Your task to perform on an android device: What's a good restaurant in San Jose? Image 0: 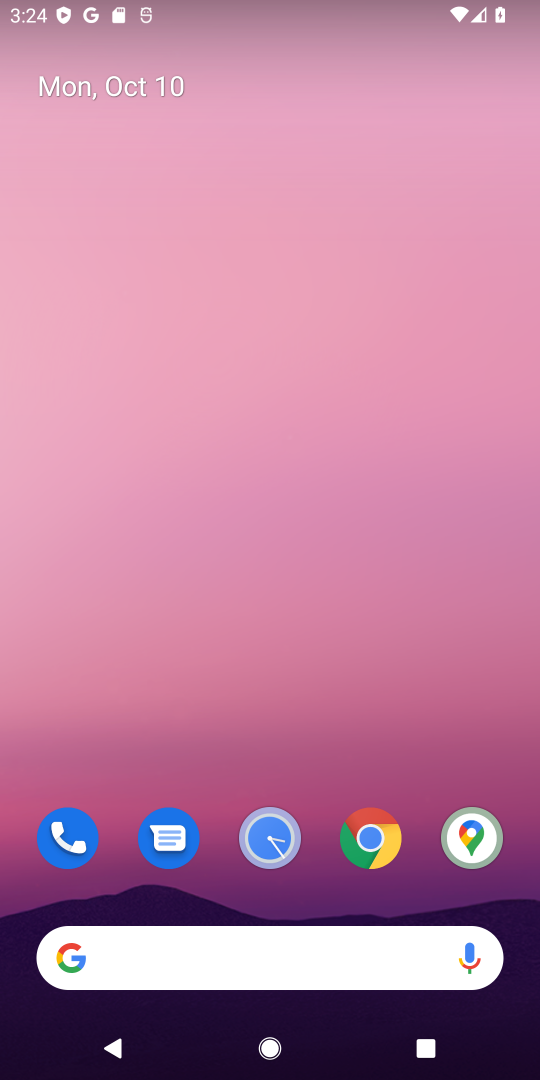
Step 0: click (254, 953)
Your task to perform on an android device: What's a good restaurant in San Jose? Image 1: 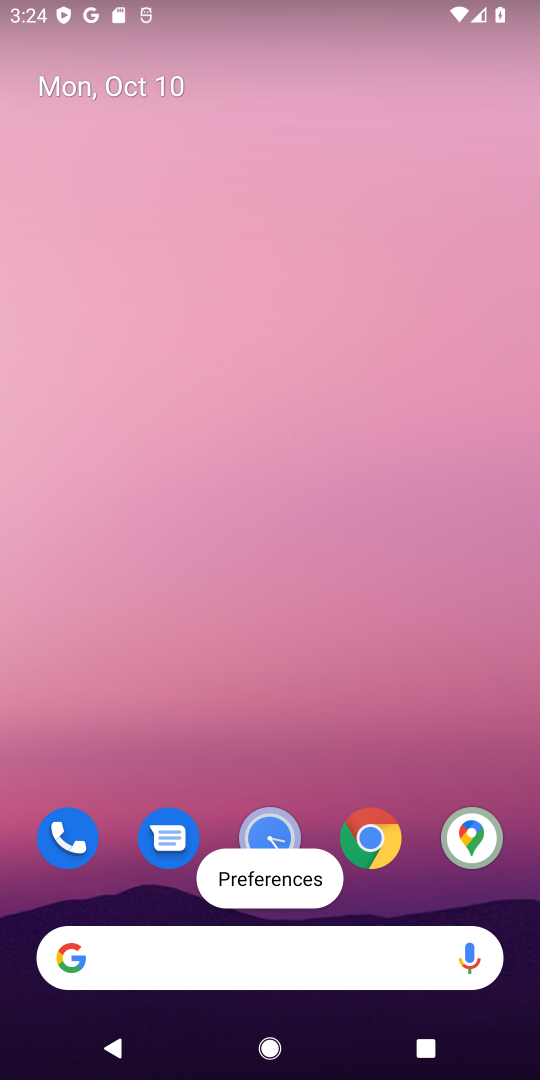
Step 1: click (254, 956)
Your task to perform on an android device: What's a good restaurant in San Jose? Image 2: 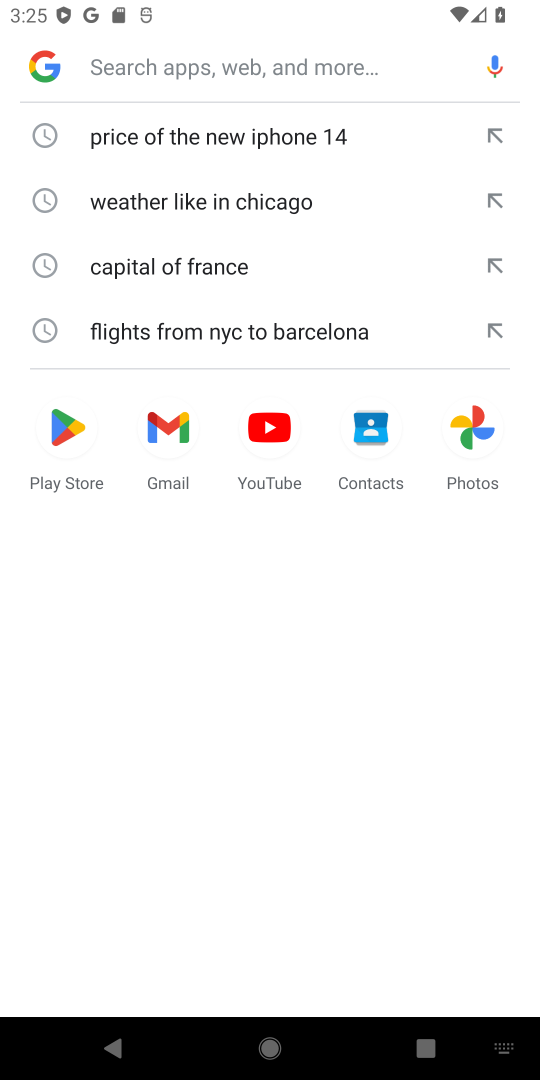
Step 2: type "good restaurant in San Jose"
Your task to perform on an android device: What's a good restaurant in San Jose? Image 3: 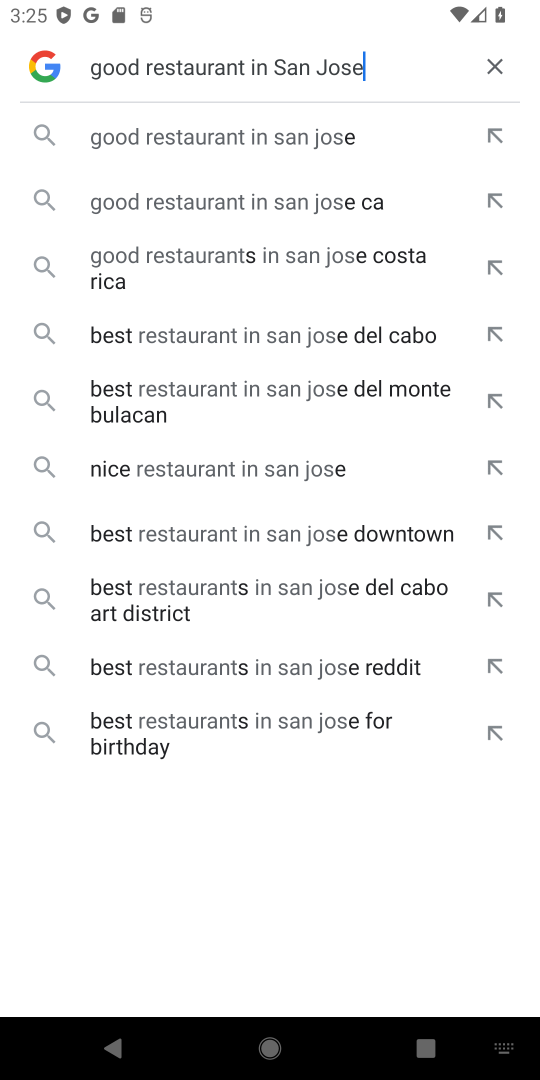
Step 3: type ""
Your task to perform on an android device: What's a good restaurant in San Jose? Image 4: 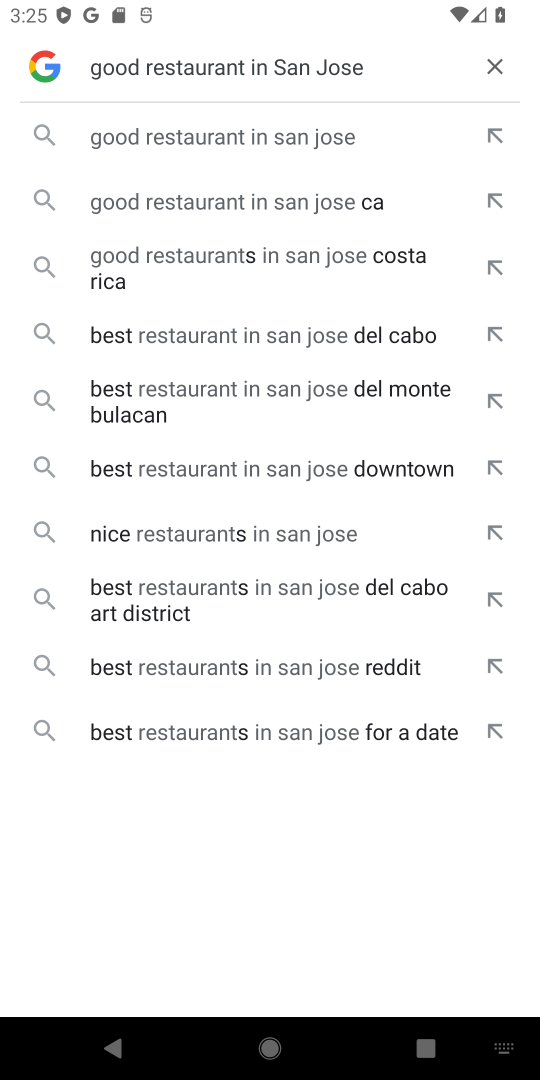
Step 4: click (237, 139)
Your task to perform on an android device: What's a good restaurant in San Jose? Image 5: 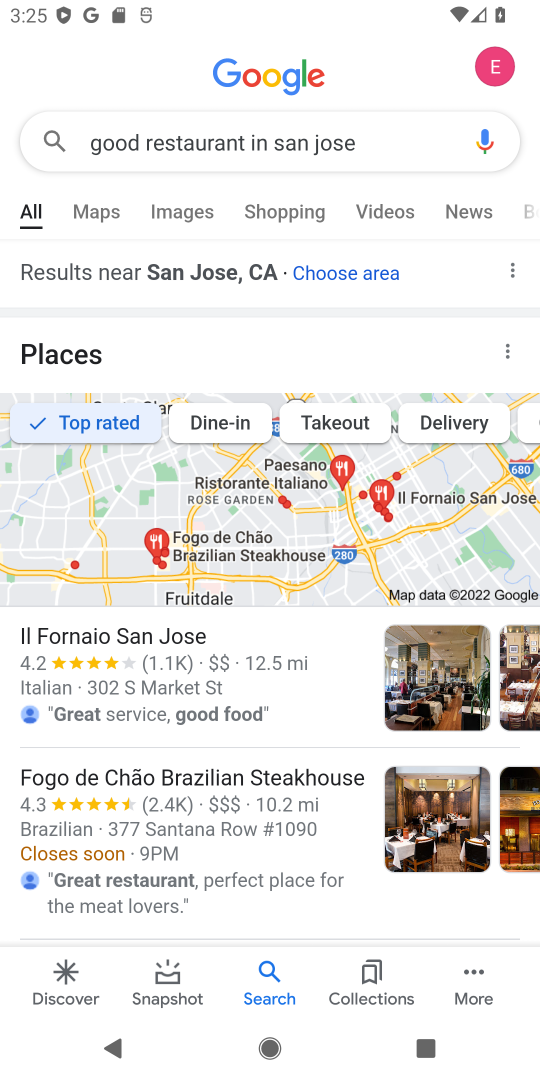
Step 5: task complete